Your task to perform on an android device: Open Android settings Image 0: 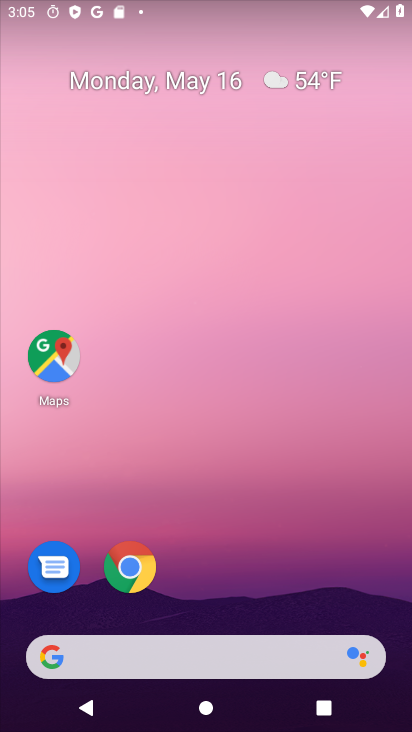
Step 0: drag from (316, 549) to (283, 133)
Your task to perform on an android device: Open Android settings Image 1: 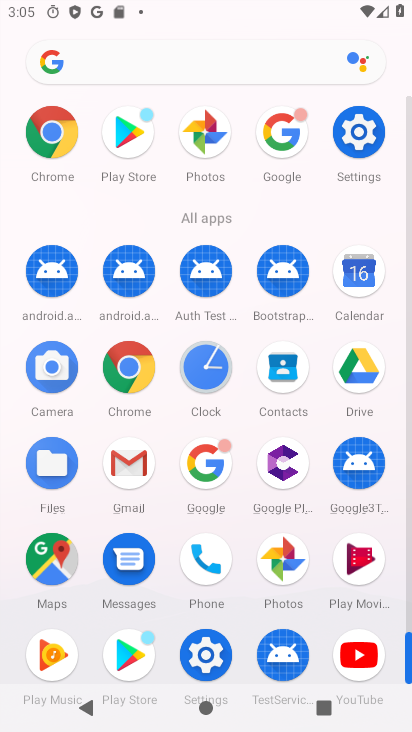
Step 1: click (359, 128)
Your task to perform on an android device: Open Android settings Image 2: 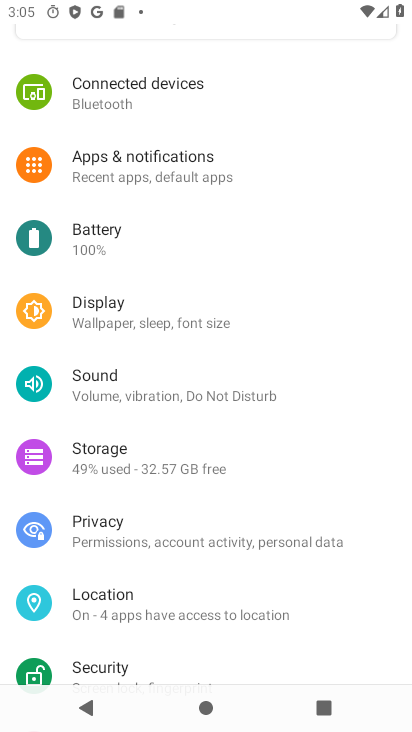
Step 2: task complete